Your task to perform on an android device: see tabs open on other devices in the chrome app Image 0: 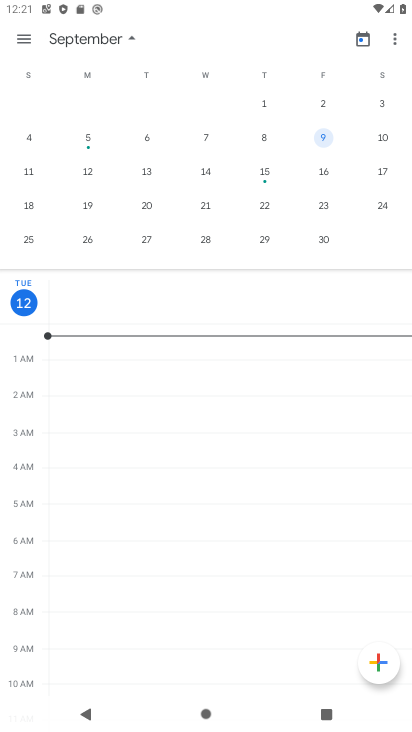
Step 0: press home button
Your task to perform on an android device: see tabs open on other devices in the chrome app Image 1: 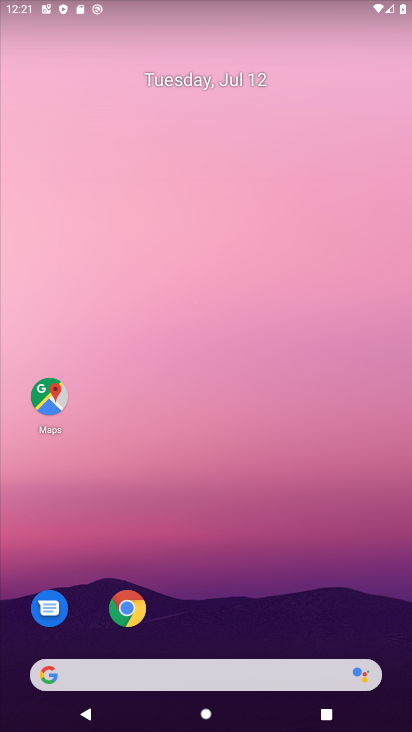
Step 1: click (134, 615)
Your task to perform on an android device: see tabs open on other devices in the chrome app Image 2: 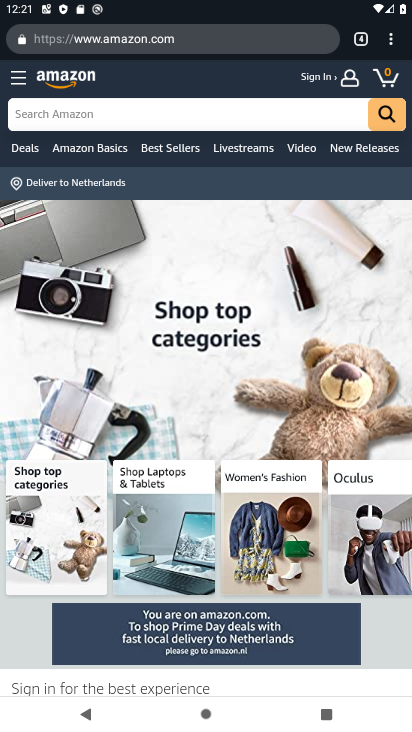
Step 2: click (393, 42)
Your task to perform on an android device: see tabs open on other devices in the chrome app Image 3: 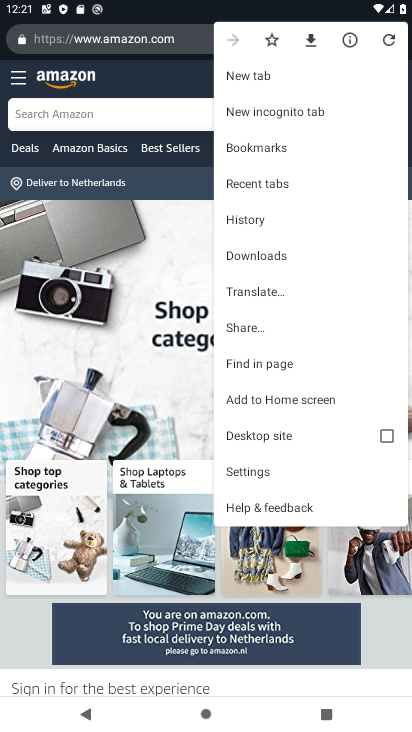
Step 3: click (300, 181)
Your task to perform on an android device: see tabs open on other devices in the chrome app Image 4: 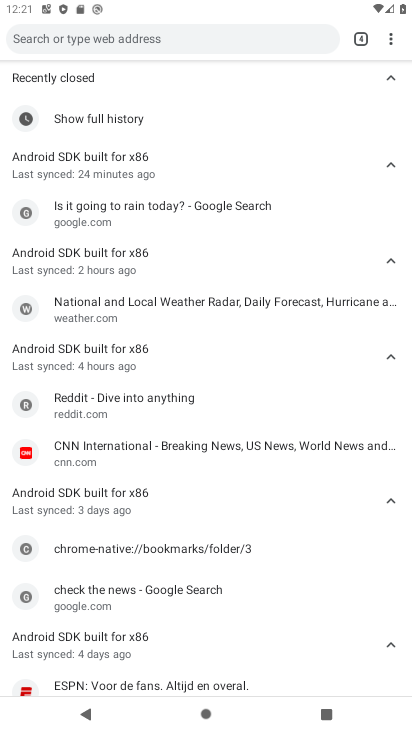
Step 4: task complete